Your task to perform on an android device: see creations saved in the google photos Image 0: 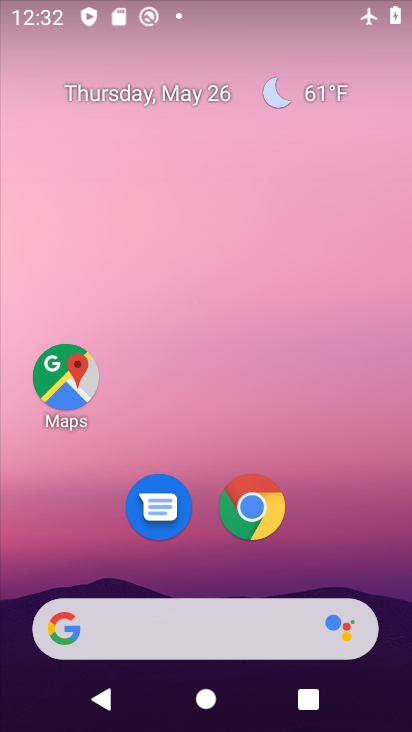
Step 0: drag from (371, 539) to (241, 182)
Your task to perform on an android device: see creations saved in the google photos Image 1: 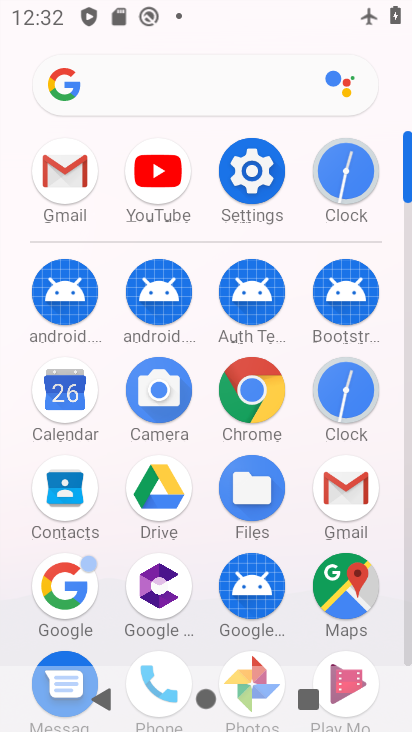
Step 1: click (264, 646)
Your task to perform on an android device: see creations saved in the google photos Image 2: 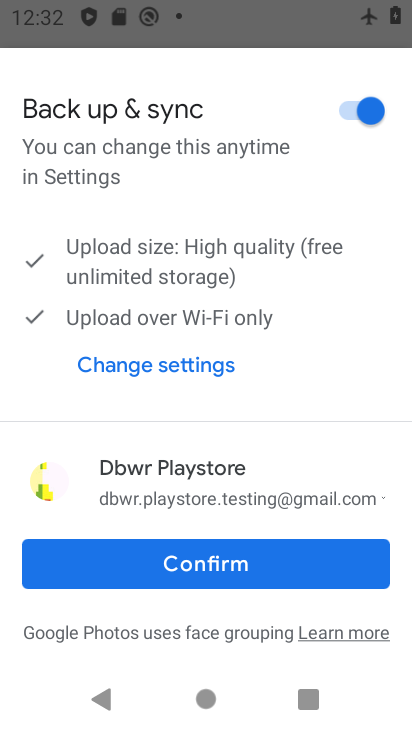
Step 2: click (268, 561)
Your task to perform on an android device: see creations saved in the google photos Image 3: 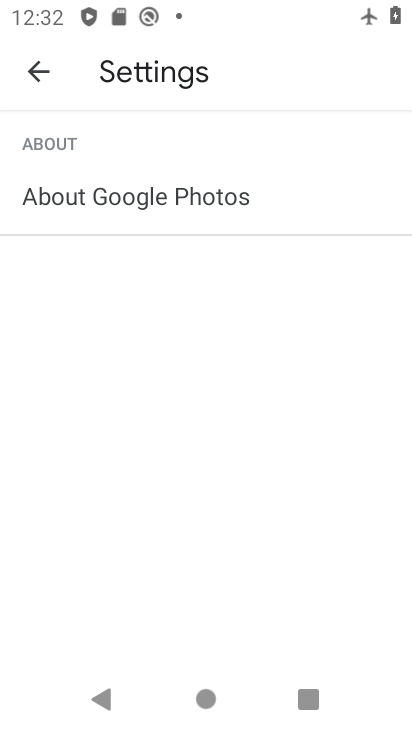
Step 3: task complete